Your task to perform on an android device: open wifi settings Image 0: 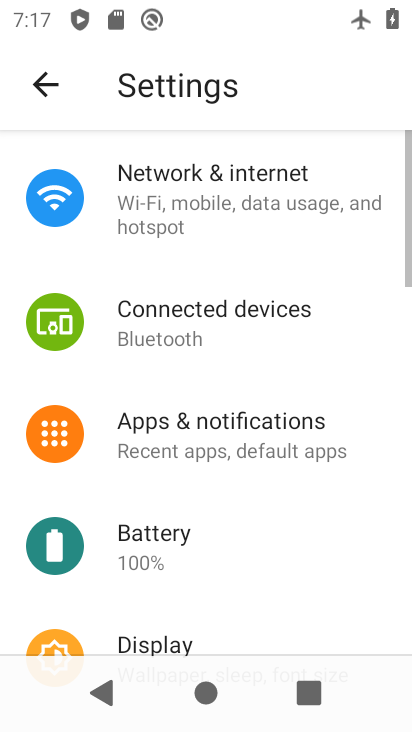
Step 0: click (194, 186)
Your task to perform on an android device: open wifi settings Image 1: 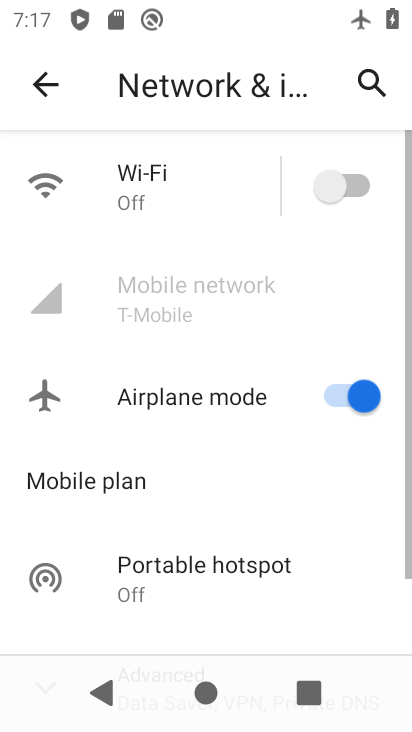
Step 1: click (139, 194)
Your task to perform on an android device: open wifi settings Image 2: 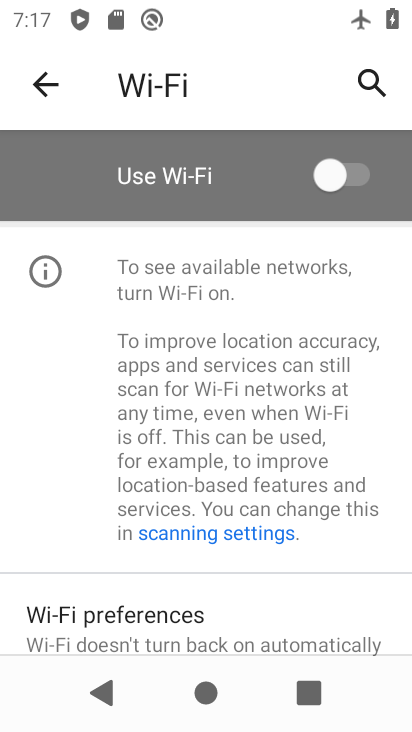
Step 2: task complete